Your task to perform on an android device: Show me recent news Image 0: 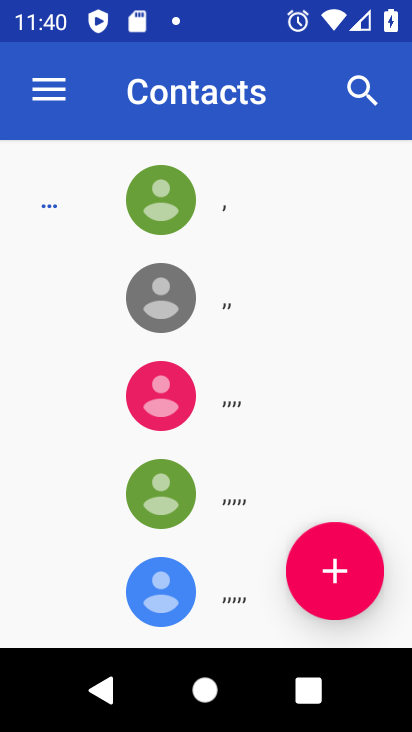
Step 0: press home button
Your task to perform on an android device: Show me recent news Image 1: 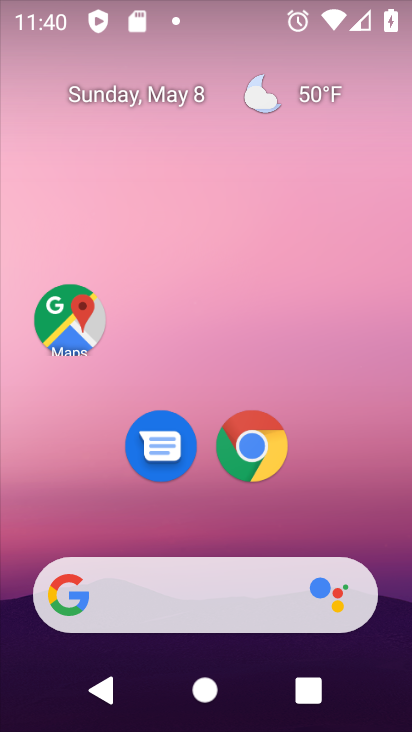
Step 1: drag from (323, 519) to (183, 47)
Your task to perform on an android device: Show me recent news Image 2: 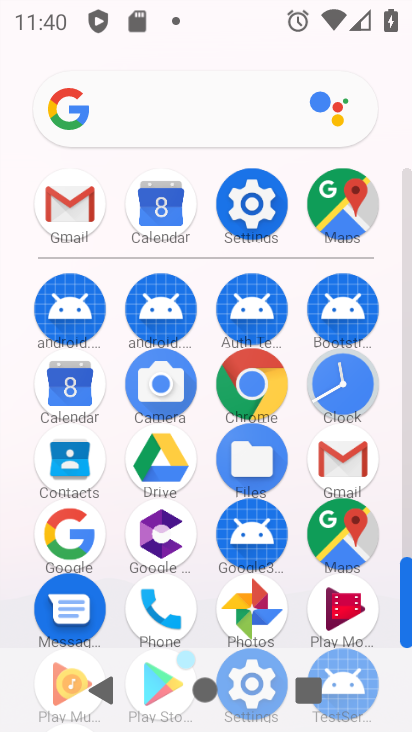
Step 2: click (124, 104)
Your task to perform on an android device: Show me recent news Image 3: 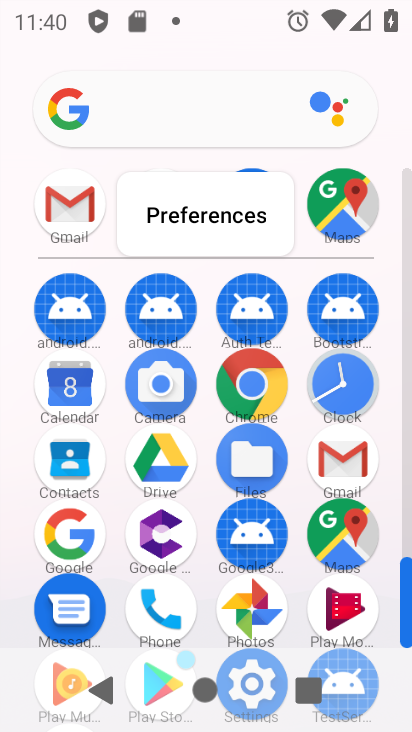
Step 3: click (100, 124)
Your task to perform on an android device: Show me recent news Image 4: 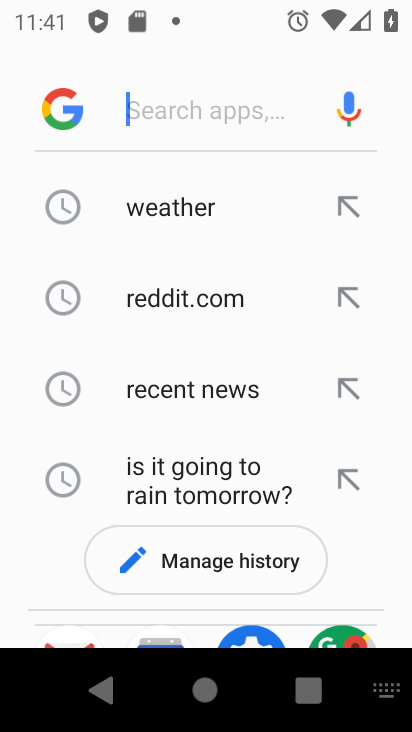
Step 4: type "recent news"
Your task to perform on an android device: Show me recent news Image 5: 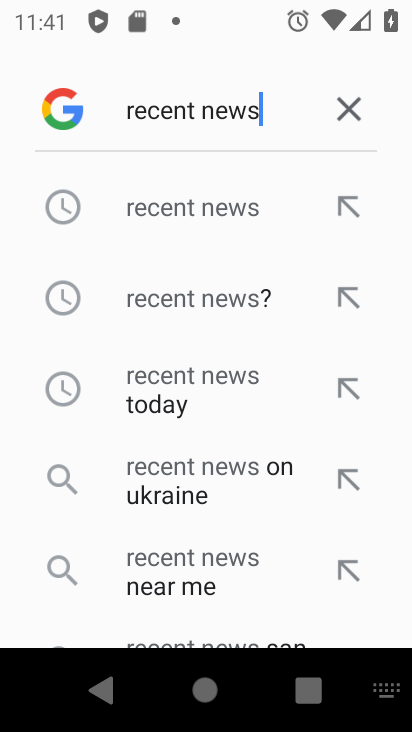
Step 5: click (204, 219)
Your task to perform on an android device: Show me recent news Image 6: 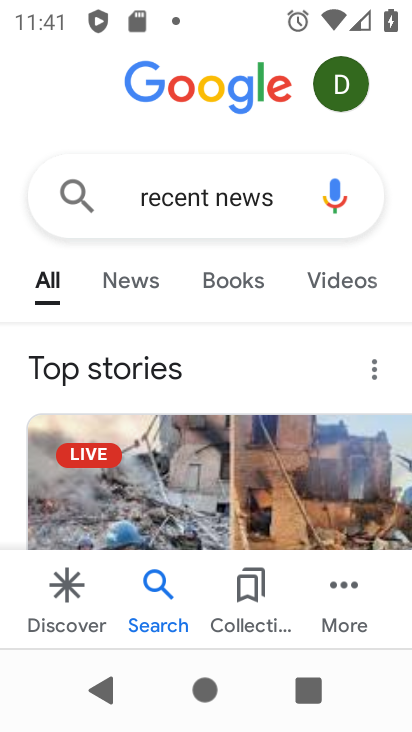
Step 6: click (142, 283)
Your task to perform on an android device: Show me recent news Image 7: 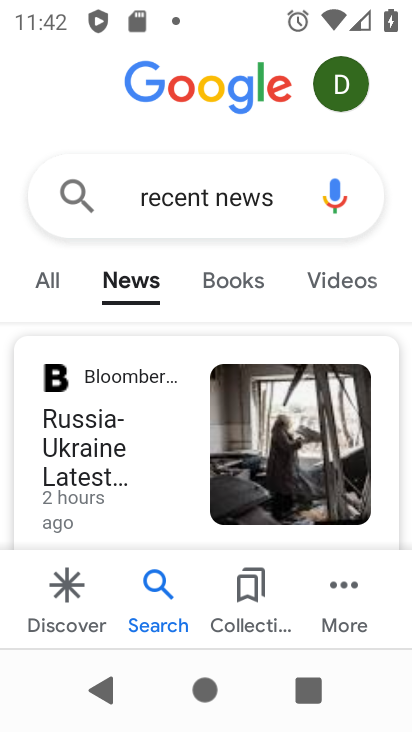
Step 7: task complete